Your task to perform on an android device: Open Google Chrome Image 0: 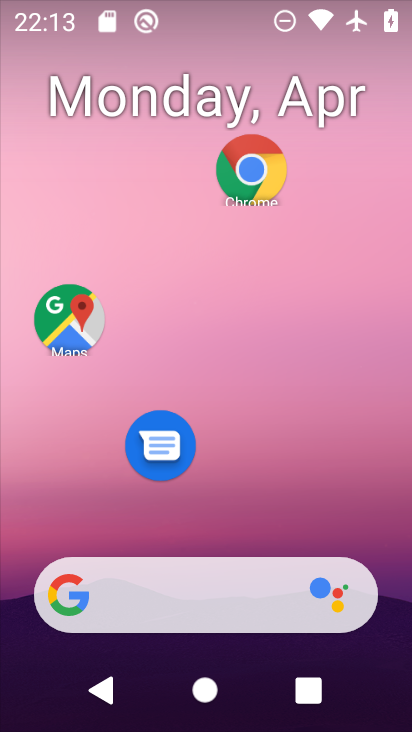
Step 0: click (249, 189)
Your task to perform on an android device: Open Google Chrome Image 1: 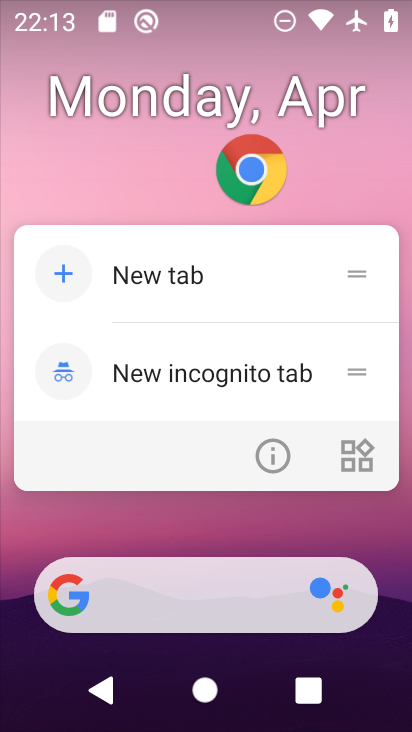
Step 1: click (251, 172)
Your task to perform on an android device: Open Google Chrome Image 2: 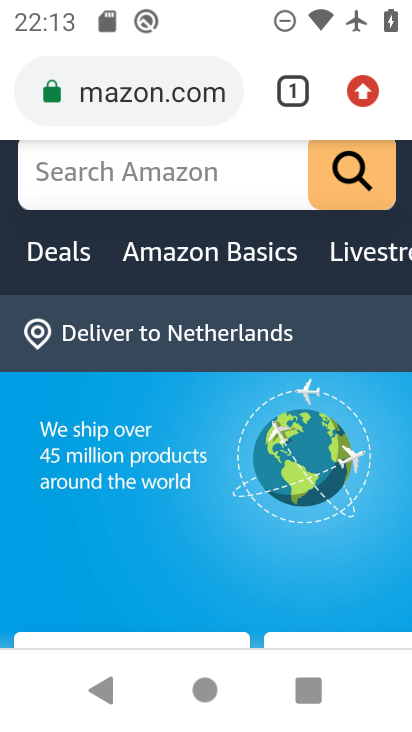
Step 2: task complete